Your task to perform on an android device: change the upload size in google photos Image 0: 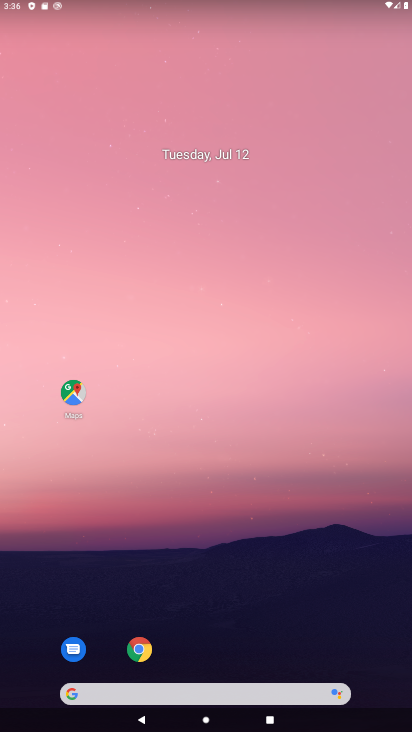
Step 0: press home button
Your task to perform on an android device: change the upload size in google photos Image 1: 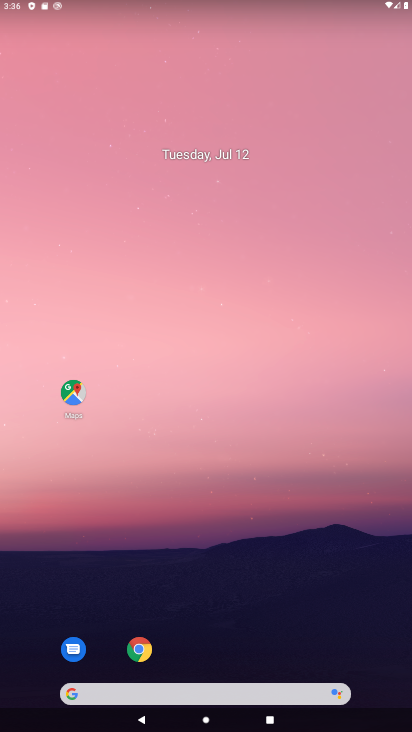
Step 1: drag from (218, 665) to (221, 12)
Your task to perform on an android device: change the upload size in google photos Image 2: 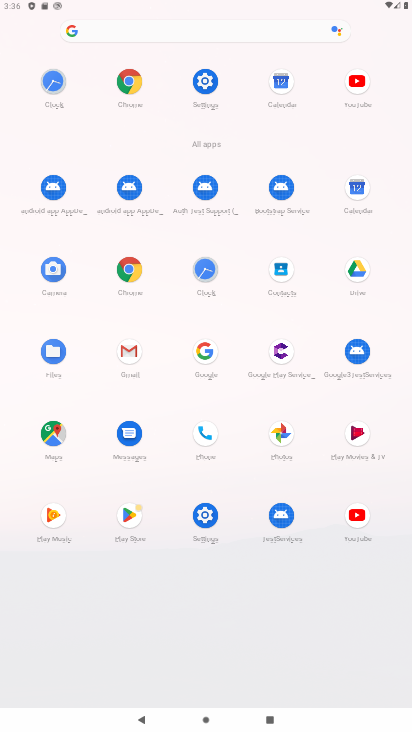
Step 2: click (281, 431)
Your task to perform on an android device: change the upload size in google photos Image 3: 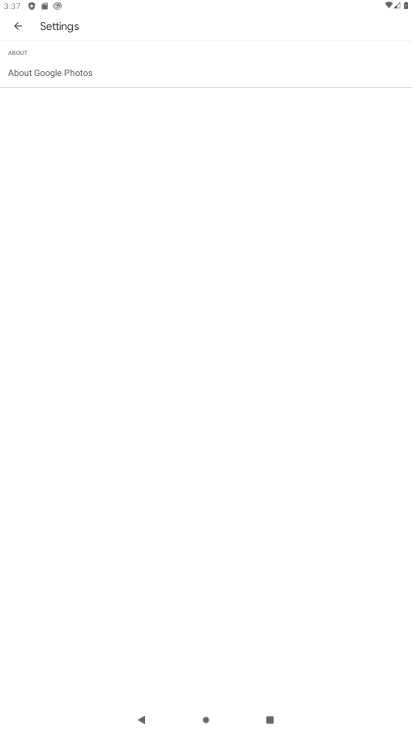
Step 3: click (13, 21)
Your task to perform on an android device: change the upload size in google photos Image 4: 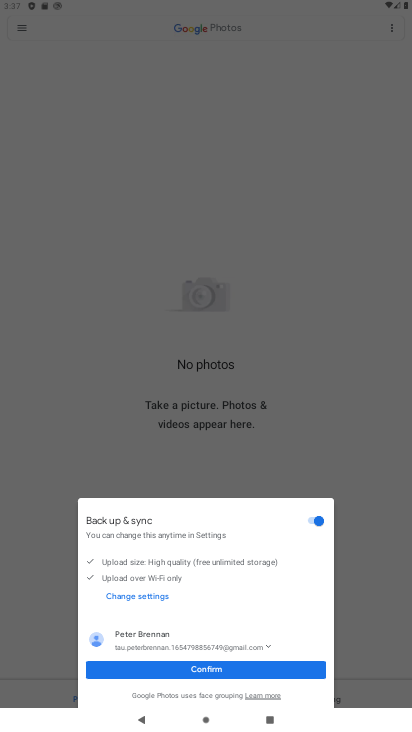
Step 4: click (202, 671)
Your task to perform on an android device: change the upload size in google photos Image 5: 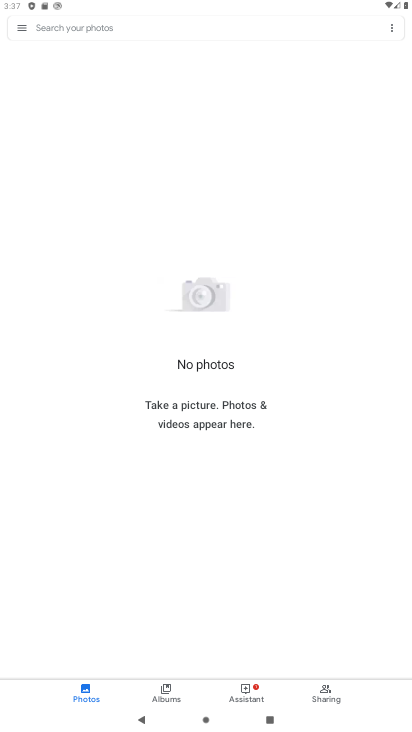
Step 5: click (17, 26)
Your task to perform on an android device: change the upload size in google photos Image 6: 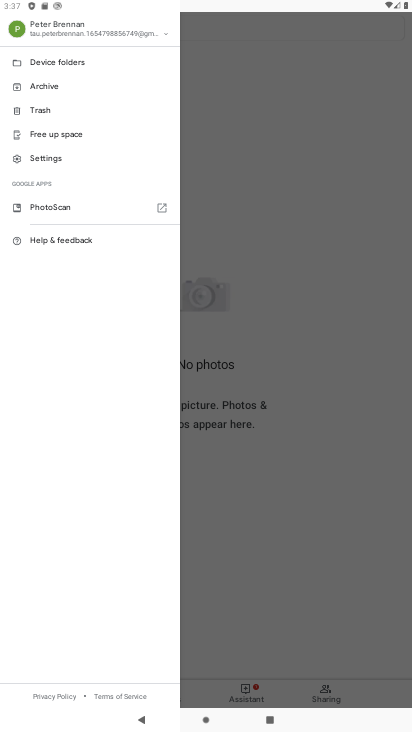
Step 6: click (60, 151)
Your task to perform on an android device: change the upload size in google photos Image 7: 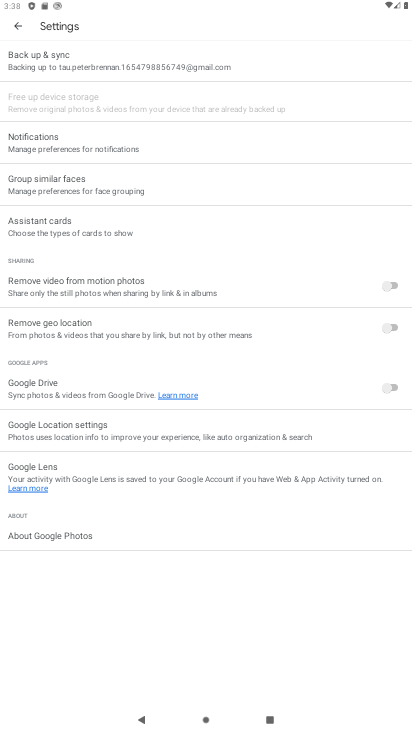
Step 7: click (49, 68)
Your task to perform on an android device: change the upload size in google photos Image 8: 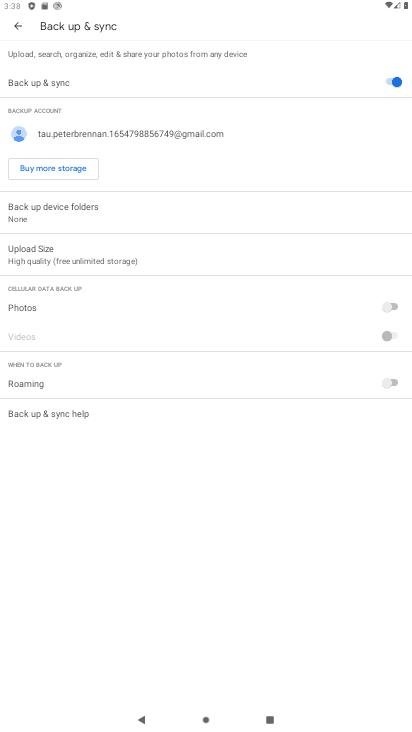
Step 8: click (83, 248)
Your task to perform on an android device: change the upload size in google photos Image 9: 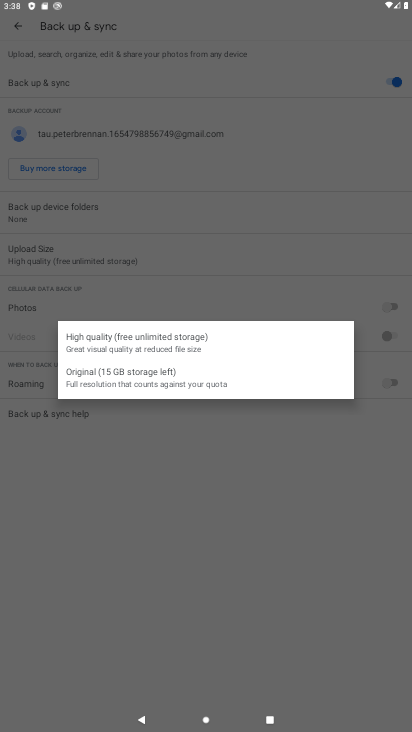
Step 9: click (165, 344)
Your task to perform on an android device: change the upload size in google photos Image 10: 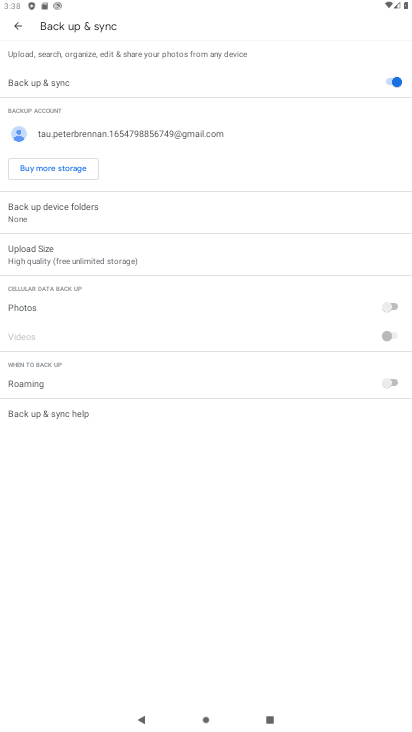
Step 10: task complete